Your task to perform on an android device: View the shopping cart on ebay.com. Add "macbook" to the cart on ebay.com, then select checkout. Image 0: 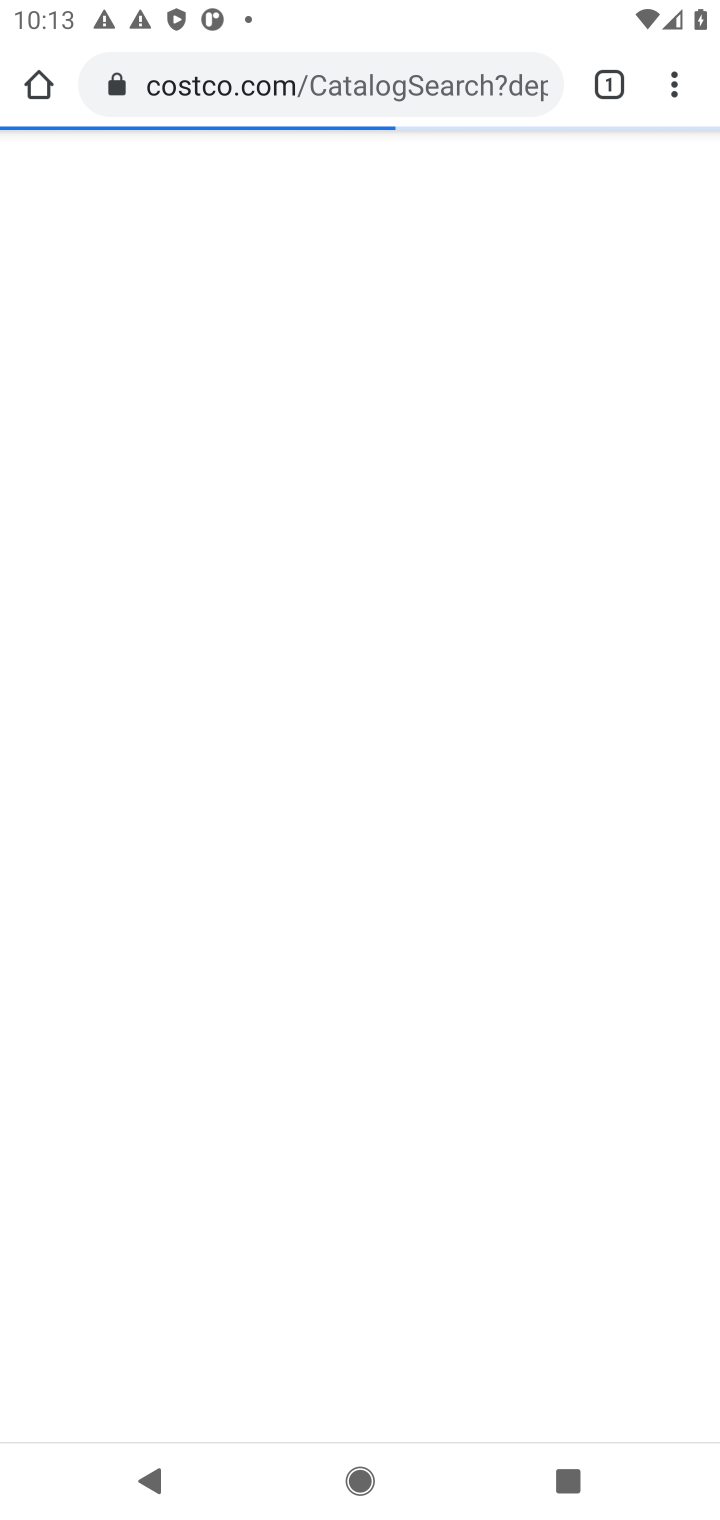
Step 0: press home button
Your task to perform on an android device: View the shopping cart on ebay.com. Add "macbook" to the cart on ebay.com, then select checkout. Image 1: 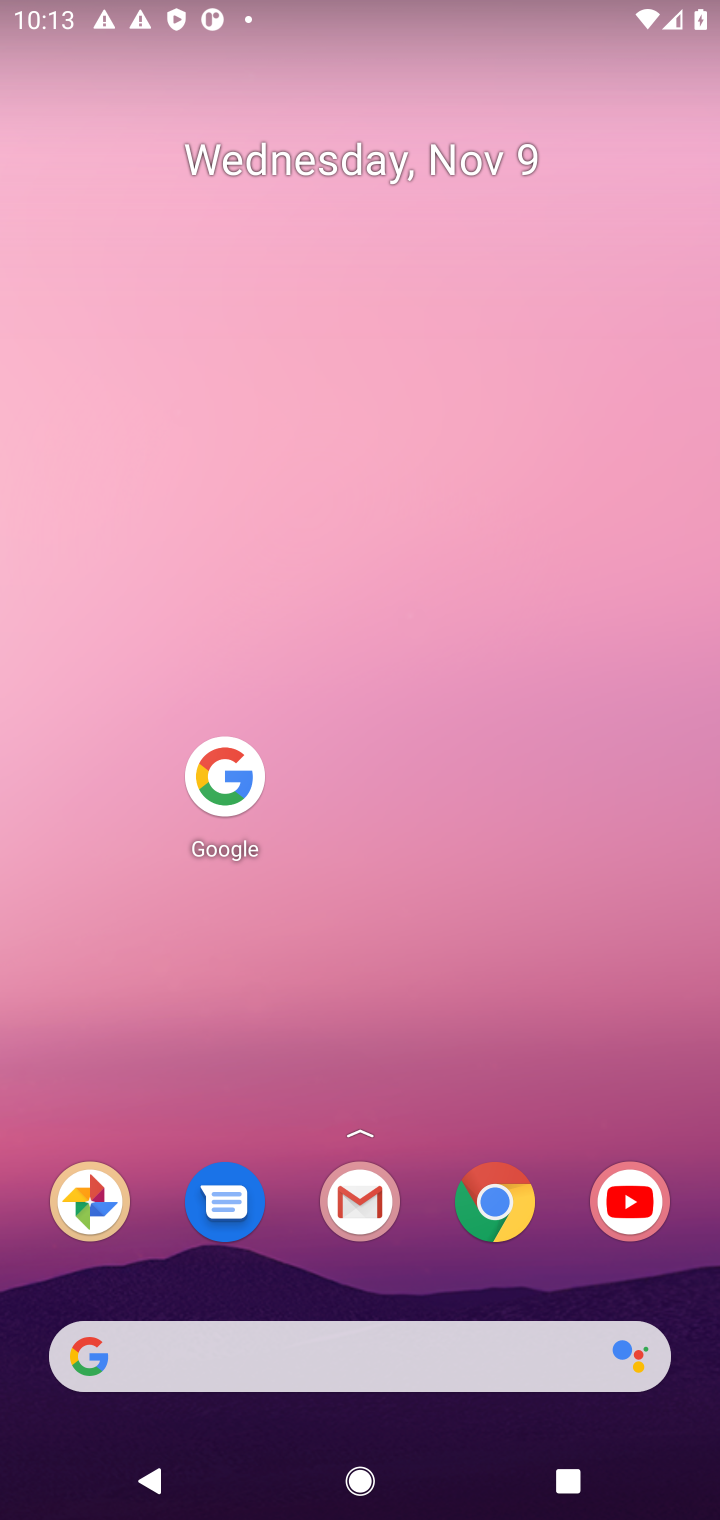
Step 1: click (233, 775)
Your task to perform on an android device: View the shopping cart on ebay.com. Add "macbook" to the cart on ebay.com, then select checkout. Image 2: 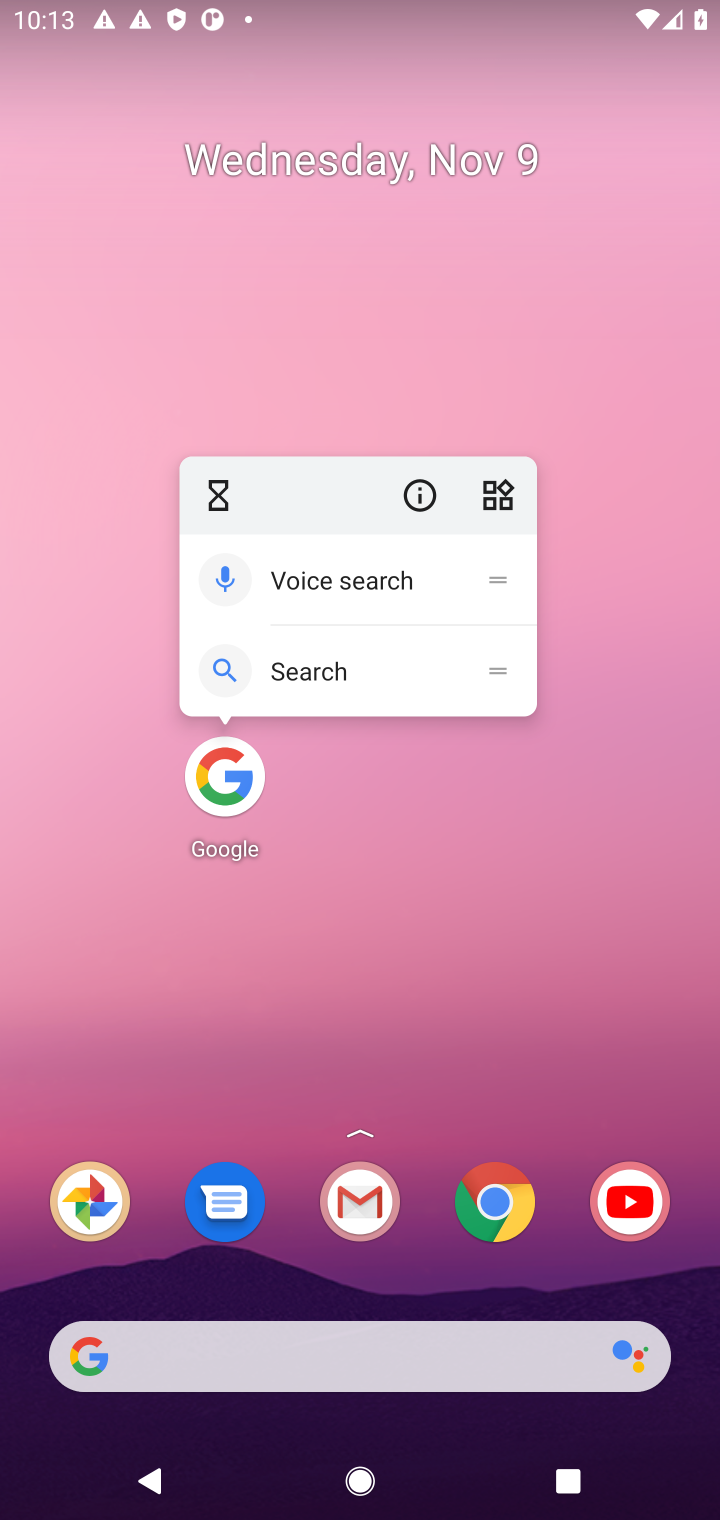
Step 2: click (208, 799)
Your task to perform on an android device: View the shopping cart on ebay.com. Add "macbook" to the cart on ebay.com, then select checkout. Image 3: 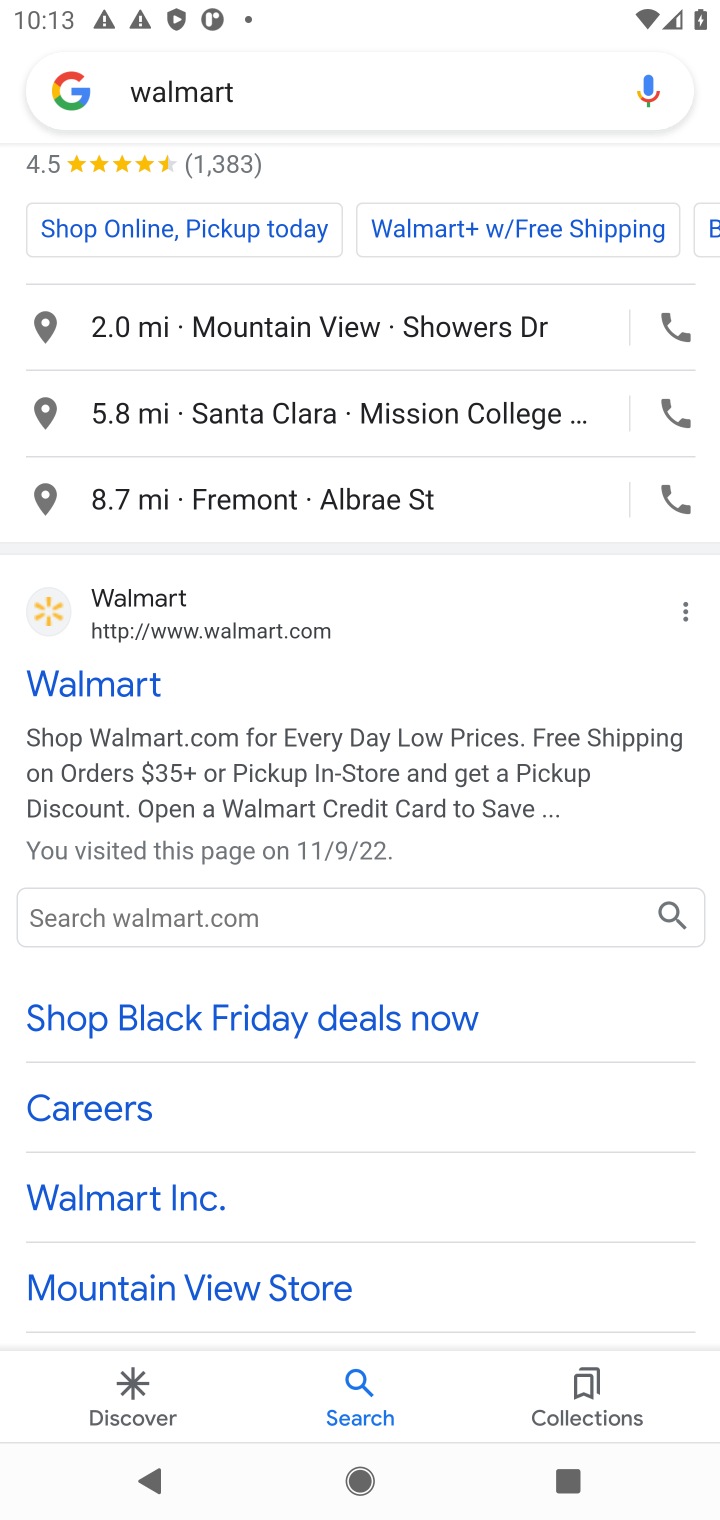
Step 3: click (290, 75)
Your task to perform on an android device: View the shopping cart on ebay.com. Add "macbook" to the cart on ebay.com, then select checkout. Image 4: 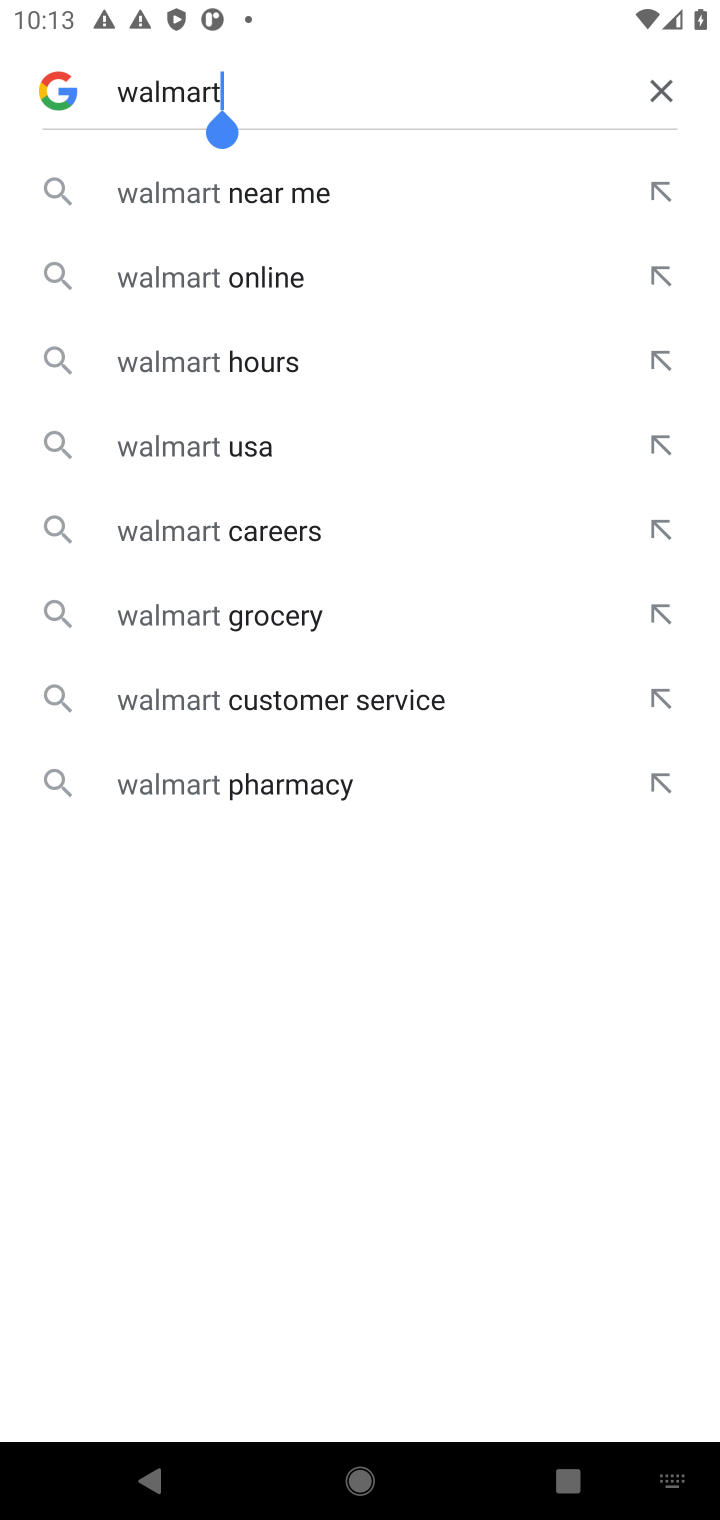
Step 4: click (657, 74)
Your task to perform on an android device: View the shopping cart on ebay.com. Add "macbook" to the cart on ebay.com, then select checkout. Image 5: 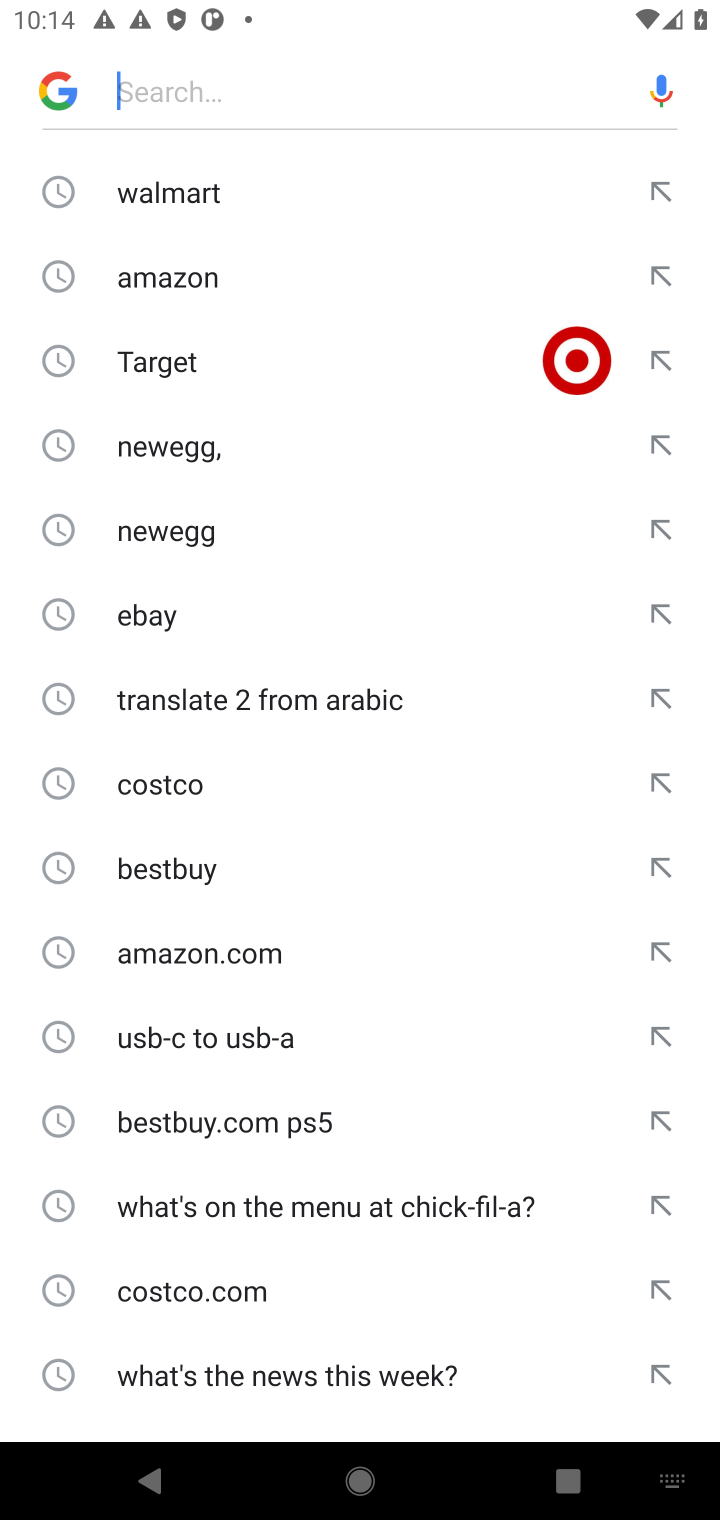
Step 5: click (150, 619)
Your task to perform on an android device: View the shopping cart on ebay.com. Add "macbook" to the cart on ebay.com, then select checkout. Image 6: 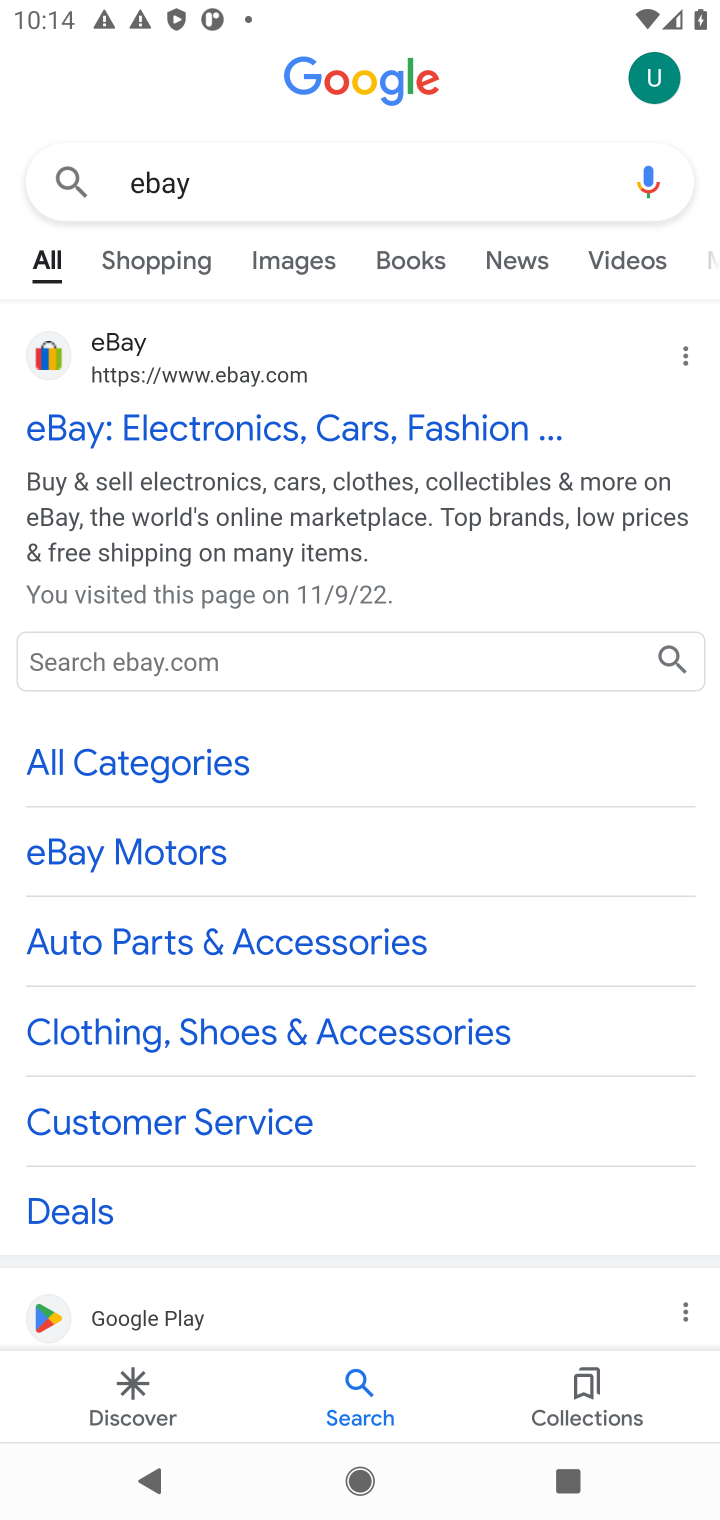
Step 6: click (286, 420)
Your task to perform on an android device: View the shopping cart on ebay.com. Add "macbook" to the cart on ebay.com, then select checkout. Image 7: 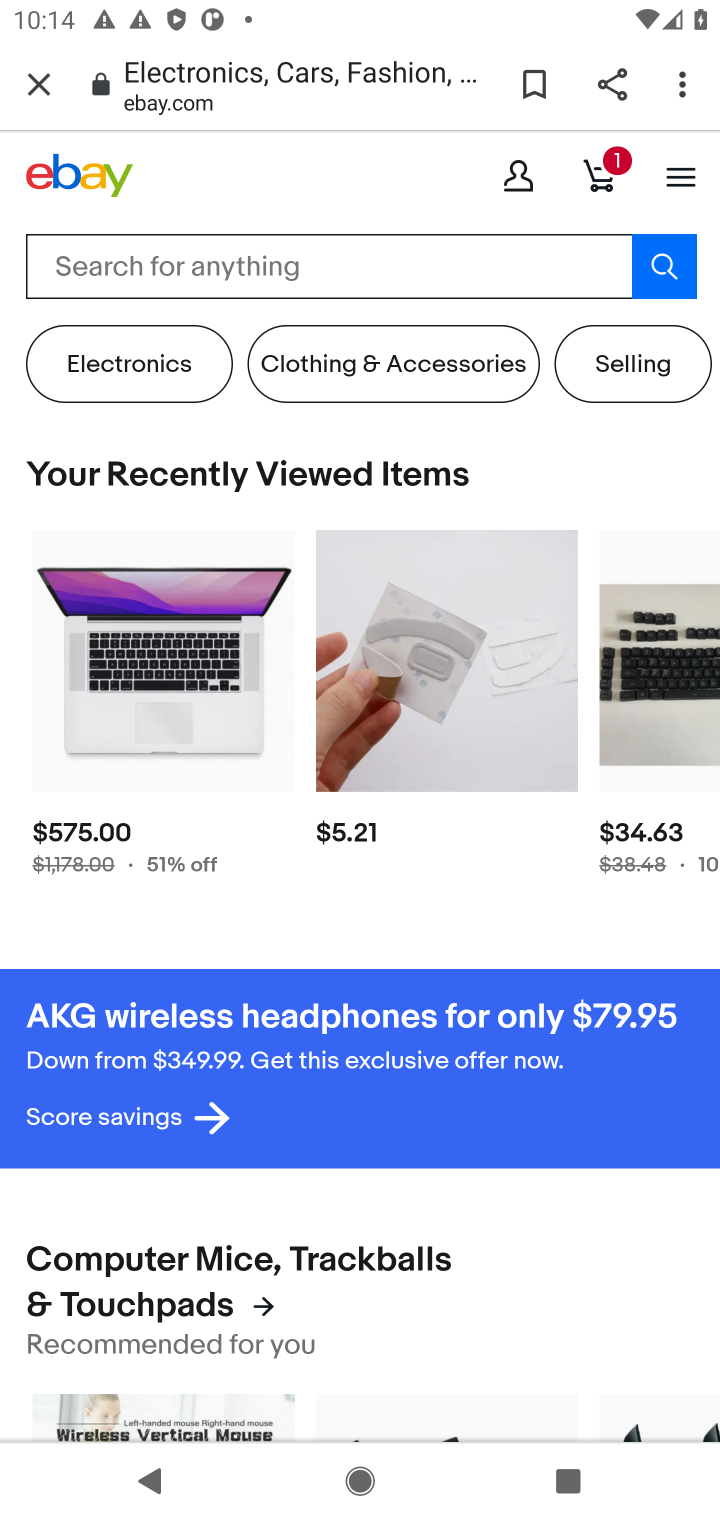
Step 7: click (608, 179)
Your task to perform on an android device: View the shopping cart on ebay.com. Add "macbook" to the cart on ebay.com, then select checkout. Image 8: 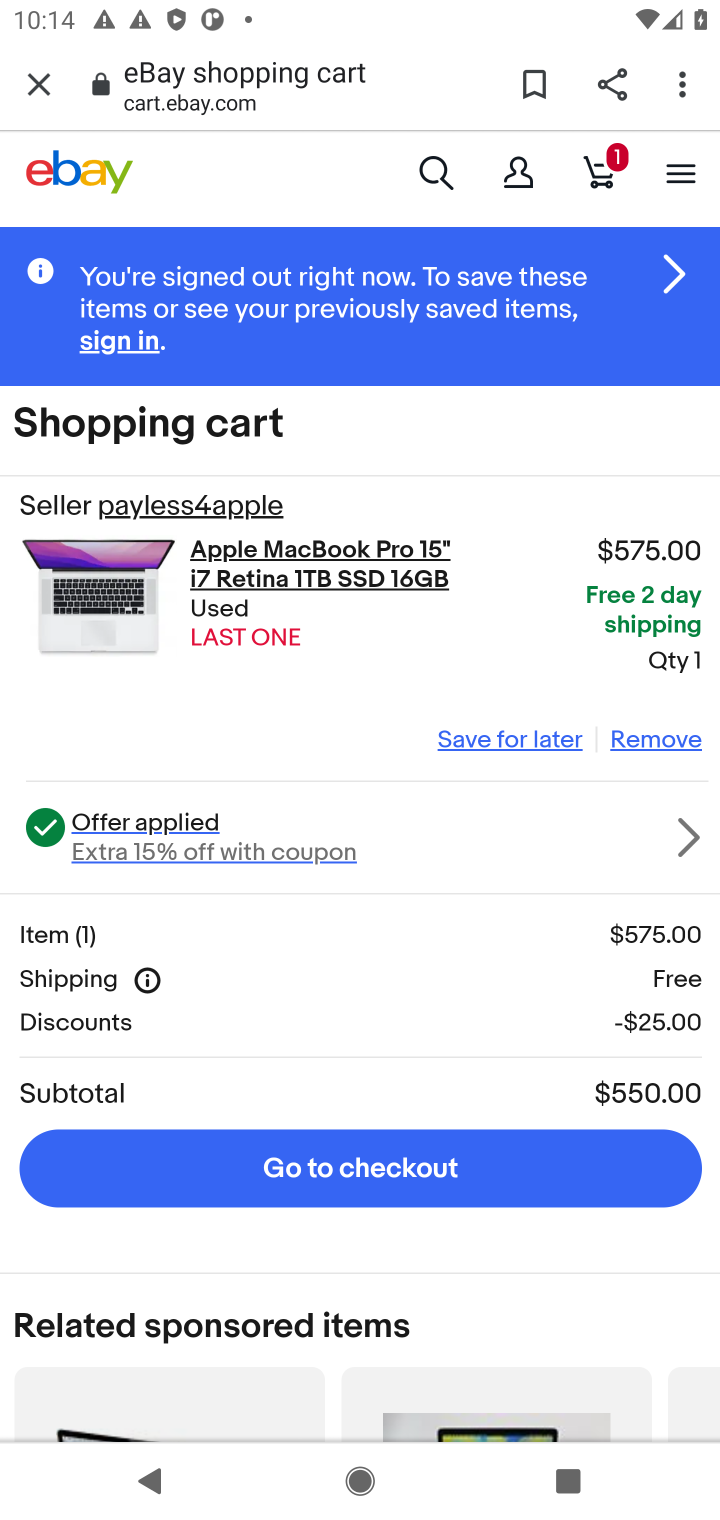
Step 8: click (325, 1161)
Your task to perform on an android device: View the shopping cart on ebay.com. Add "macbook" to the cart on ebay.com, then select checkout. Image 9: 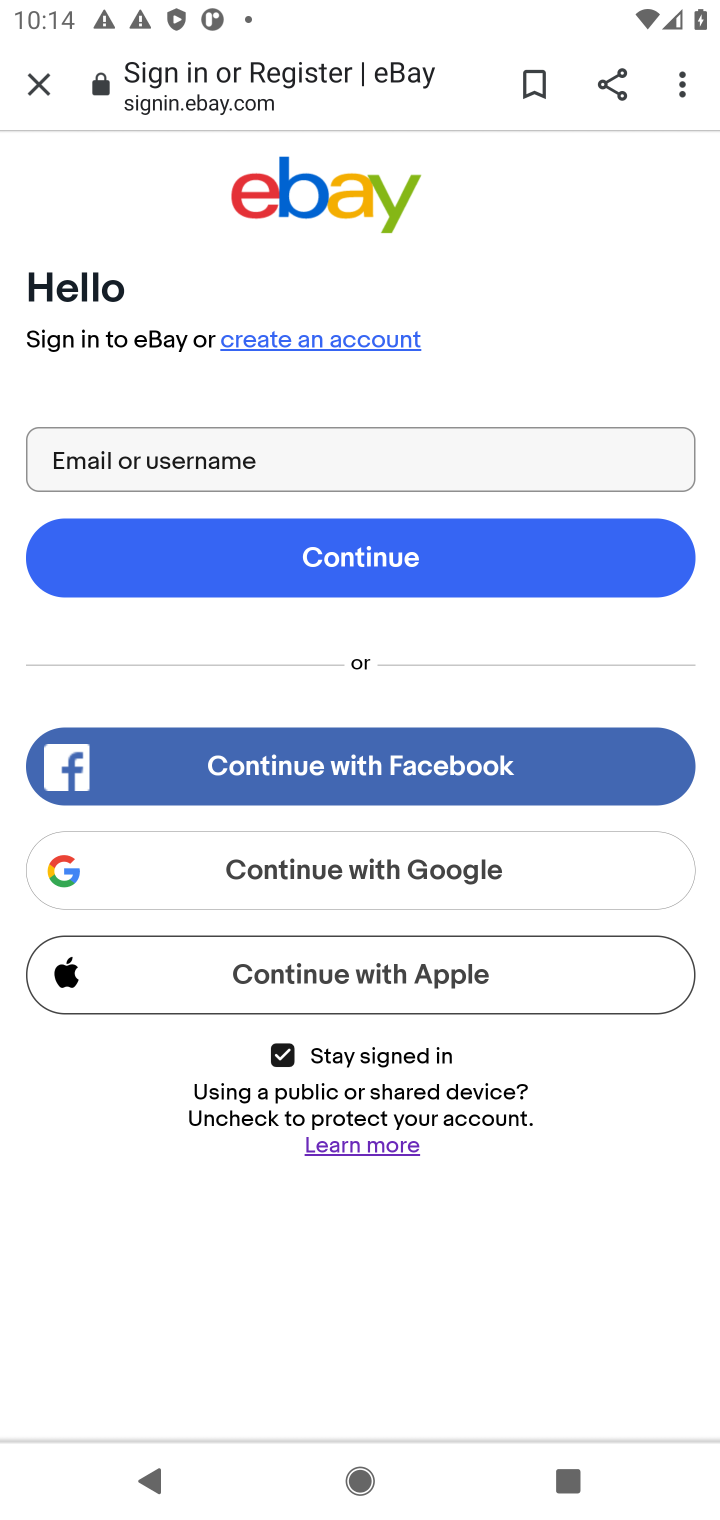
Step 9: task complete